Your task to perform on an android device: Open CNN.com Image 0: 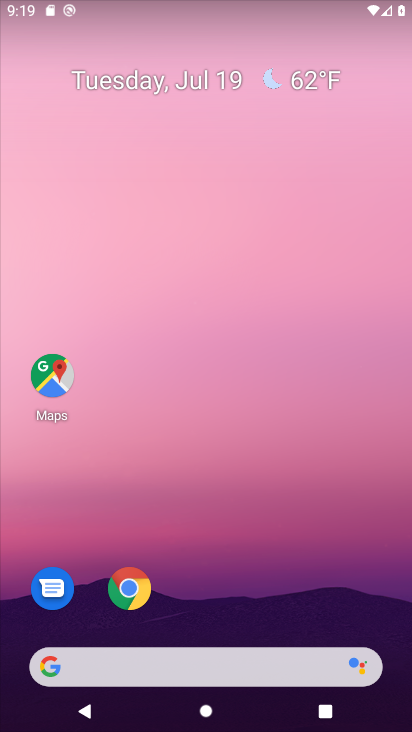
Step 0: click (117, 595)
Your task to perform on an android device: Open CNN.com Image 1: 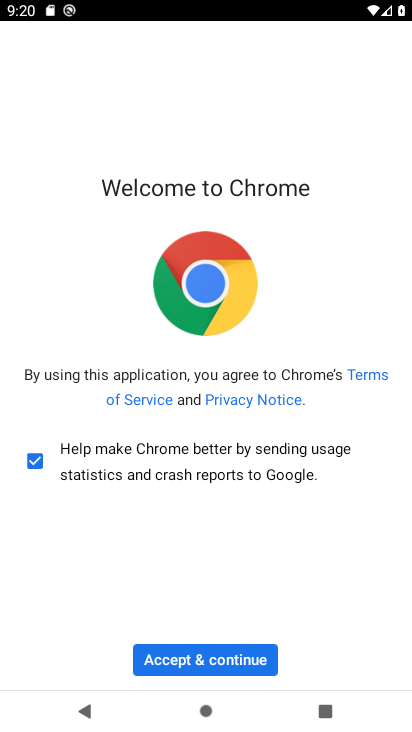
Step 1: click (246, 662)
Your task to perform on an android device: Open CNN.com Image 2: 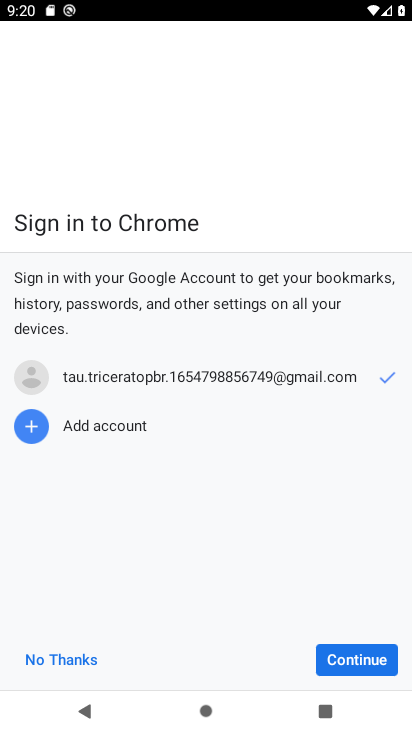
Step 2: click (254, 650)
Your task to perform on an android device: Open CNN.com Image 3: 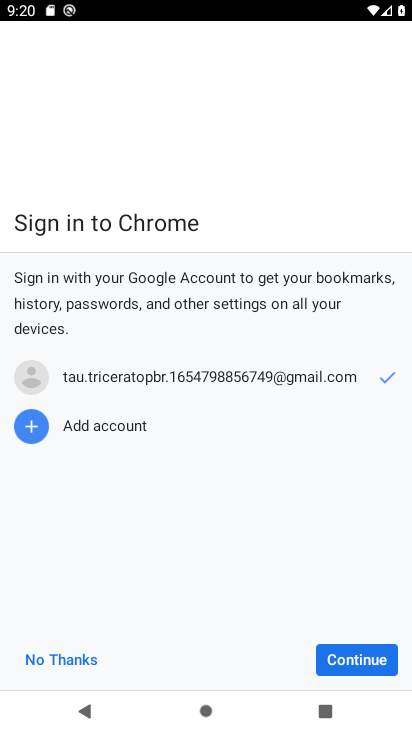
Step 3: click (350, 656)
Your task to perform on an android device: Open CNN.com Image 4: 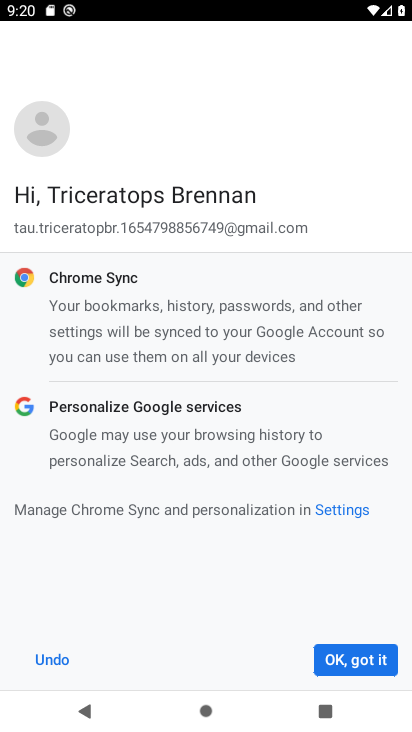
Step 4: click (350, 656)
Your task to perform on an android device: Open CNN.com Image 5: 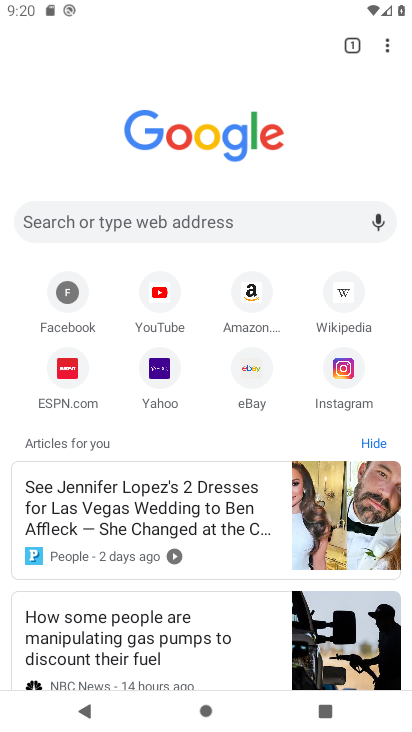
Step 5: click (264, 207)
Your task to perform on an android device: Open CNN.com Image 6: 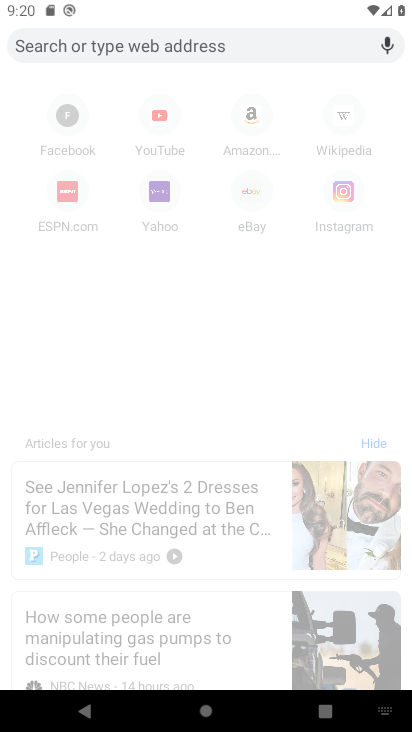
Step 6: click (207, 216)
Your task to perform on an android device: Open CNN.com Image 7: 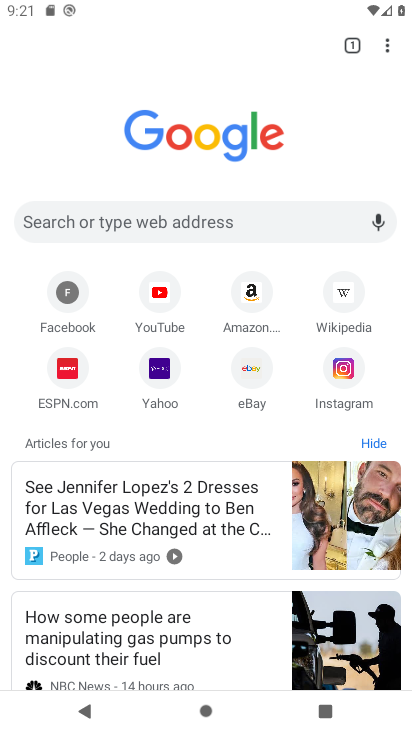
Step 7: type "www.cnn.com"
Your task to perform on an android device: Open CNN.com Image 8: 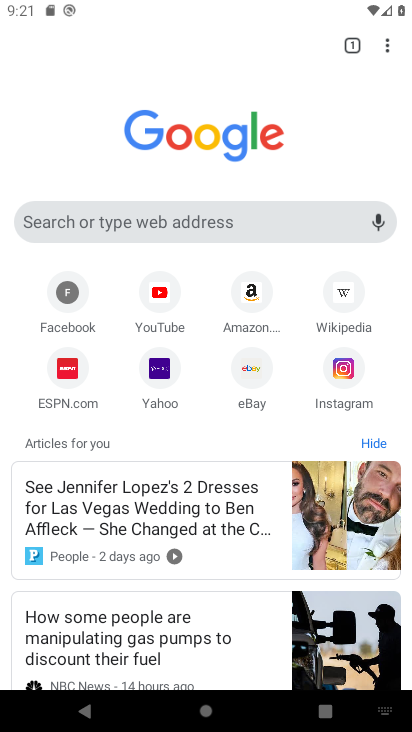
Step 8: click (192, 227)
Your task to perform on an android device: Open CNN.com Image 9: 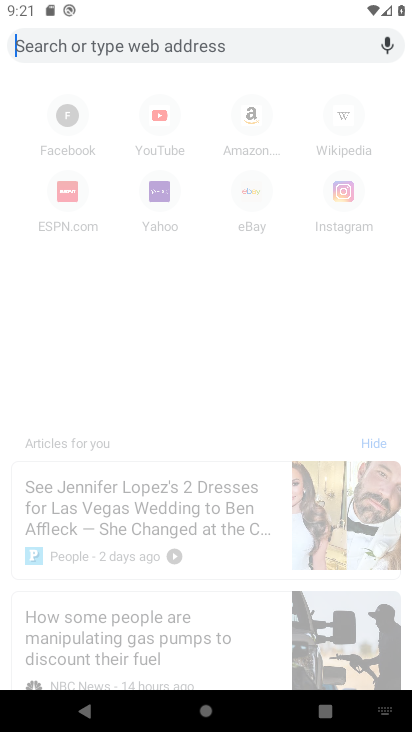
Step 9: type "www.cnn.com"
Your task to perform on an android device: Open CNN.com Image 10: 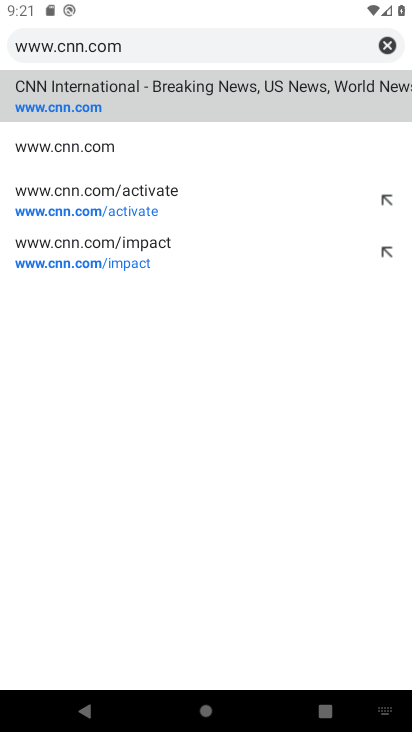
Step 10: click (50, 99)
Your task to perform on an android device: Open CNN.com Image 11: 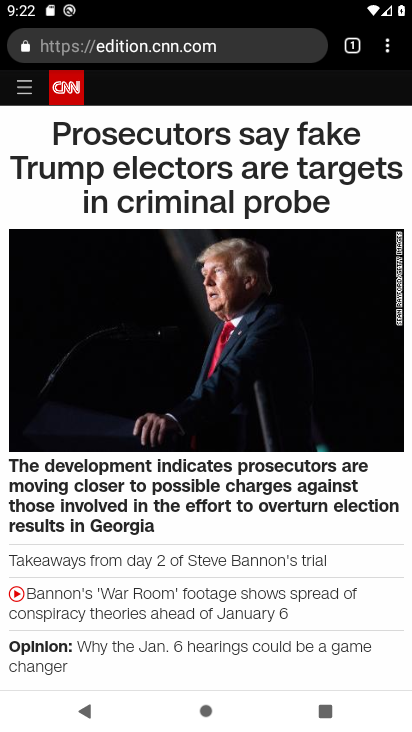
Step 11: task complete